Your task to perform on an android device: toggle notifications settings in the gmail app Image 0: 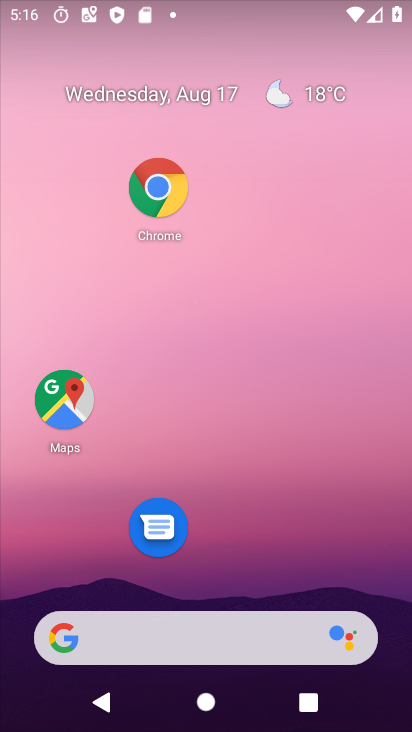
Step 0: drag from (207, 580) to (241, 74)
Your task to perform on an android device: toggle notifications settings in the gmail app Image 1: 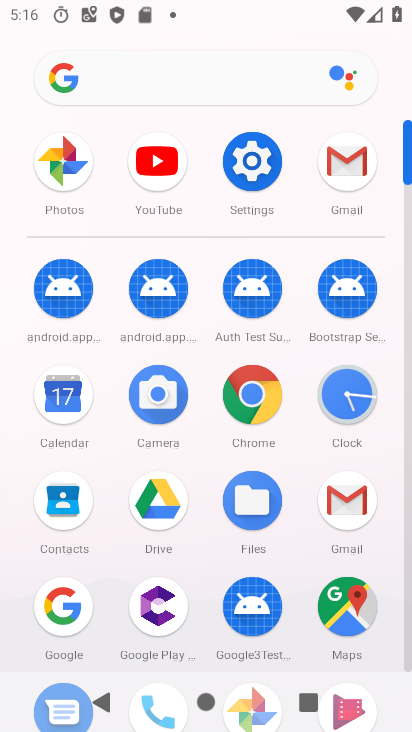
Step 1: click (260, 152)
Your task to perform on an android device: toggle notifications settings in the gmail app Image 2: 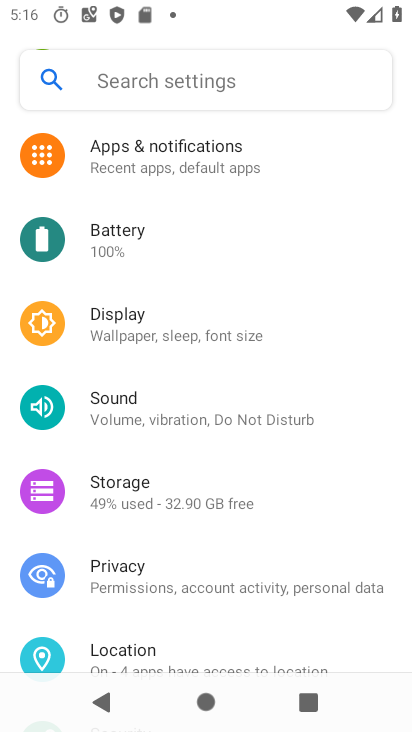
Step 2: click (260, 152)
Your task to perform on an android device: toggle notifications settings in the gmail app Image 3: 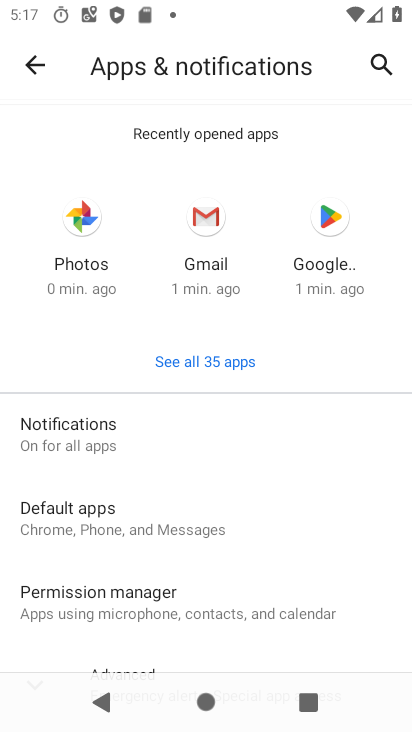
Step 3: click (211, 227)
Your task to perform on an android device: toggle notifications settings in the gmail app Image 4: 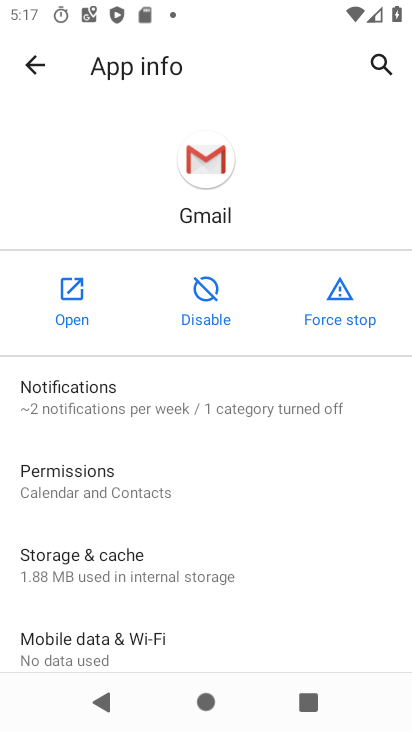
Step 4: click (143, 400)
Your task to perform on an android device: toggle notifications settings in the gmail app Image 5: 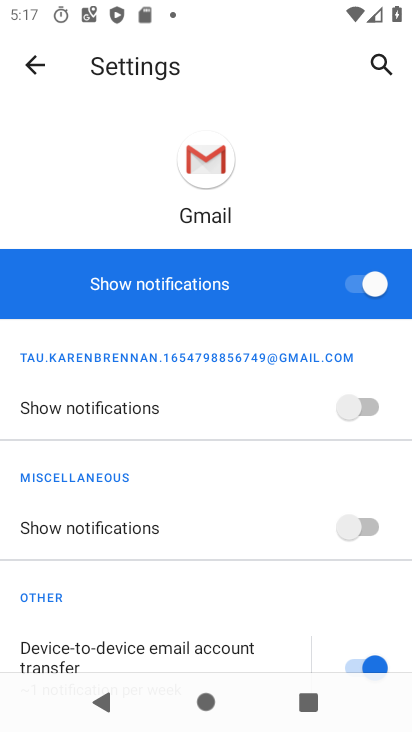
Step 5: click (367, 282)
Your task to perform on an android device: toggle notifications settings in the gmail app Image 6: 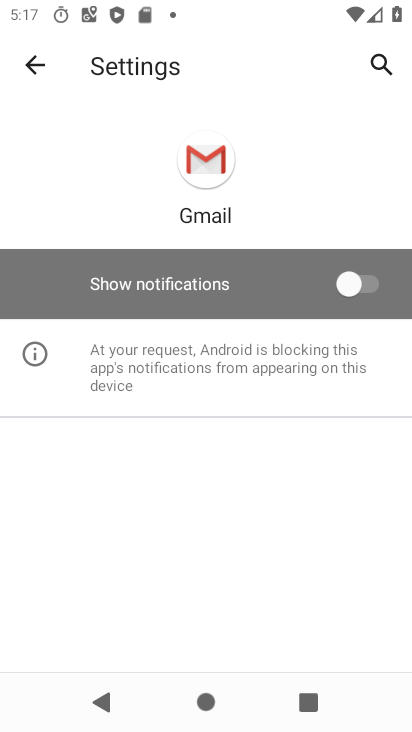
Step 6: task complete